Your task to perform on an android device: Open calendar and show me the first week of next month Image 0: 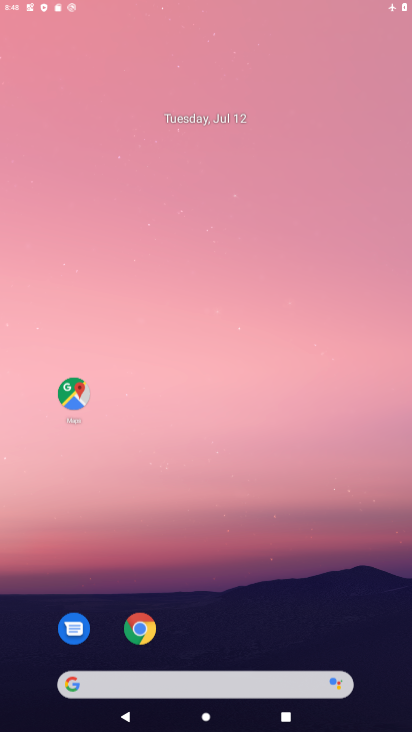
Step 0: click (232, 240)
Your task to perform on an android device: Open calendar and show me the first week of next month Image 1: 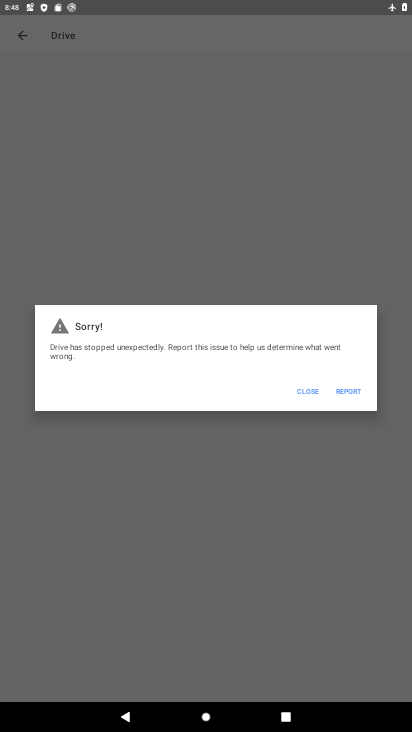
Step 1: click (319, 391)
Your task to perform on an android device: Open calendar and show me the first week of next month Image 2: 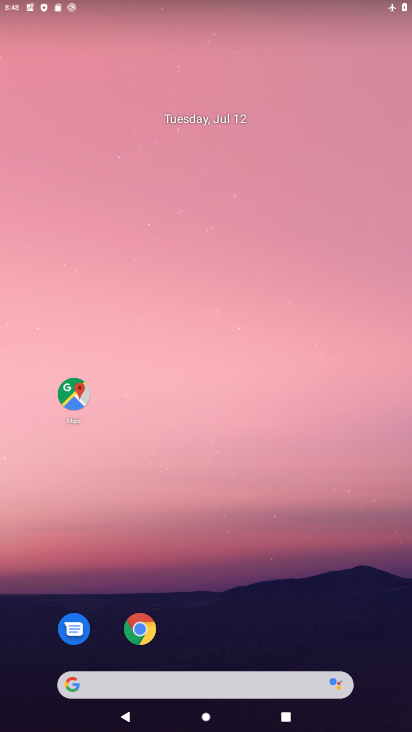
Step 2: drag from (238, 604) to (239, 223)
Your task to perform on an android device: Open calendar and show me the first week of next month Image 3: 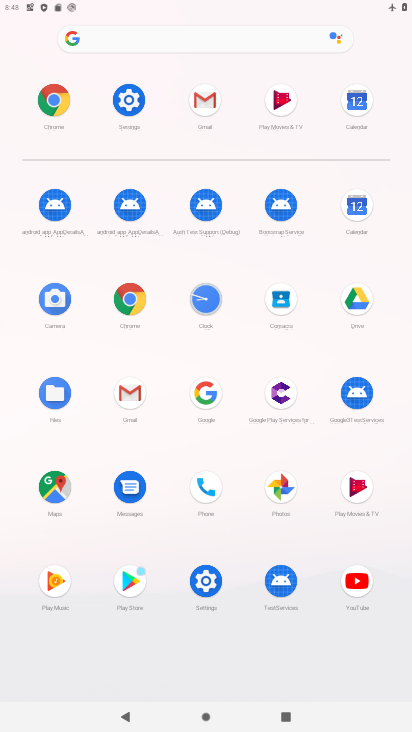
Step 3: click (354, 188)
Your task to perform on an android device: Open calendar and show me the first week of next month Image 4: 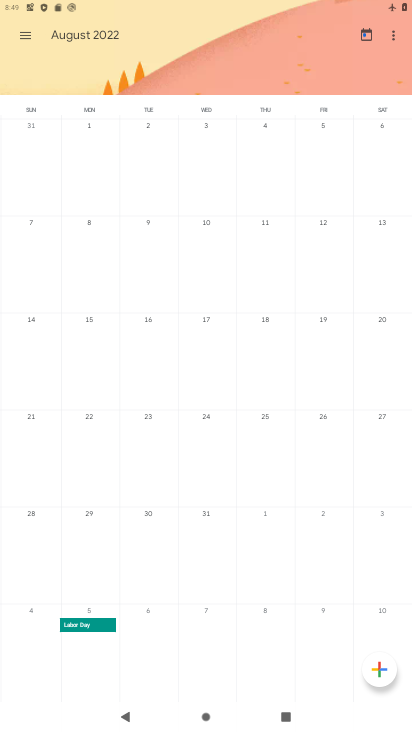
Step 4: task complete